Your task to perform on an android device: set an alarm Image 0: 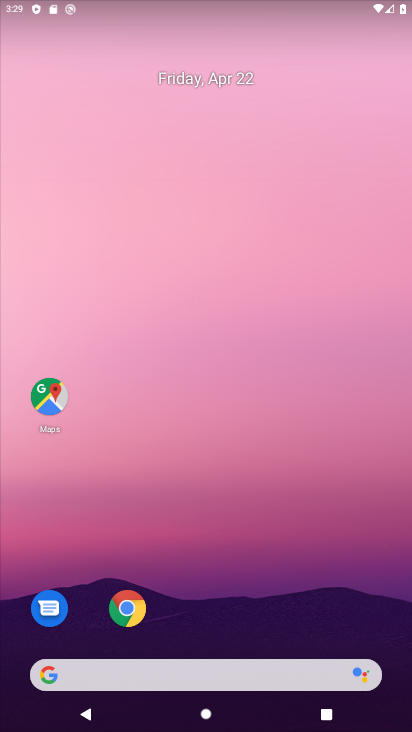
Step 0: drag from (303, 550) to (251, 221)
Your task to perform on an android device: set an alarm Image 1: 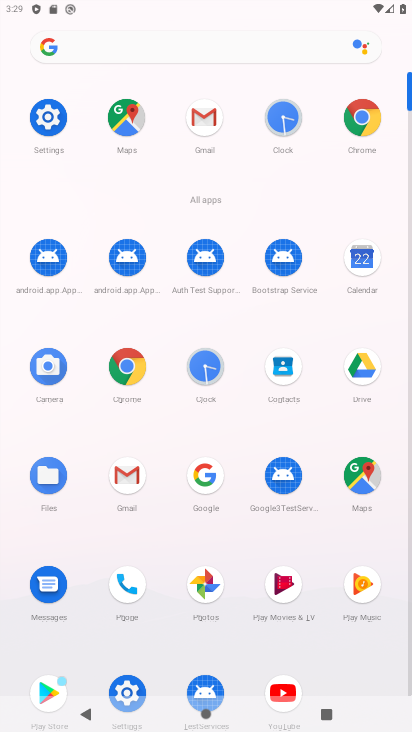
Step 1: click (283, 128)
Your task to perform on an android device: set an alarm Image 2: 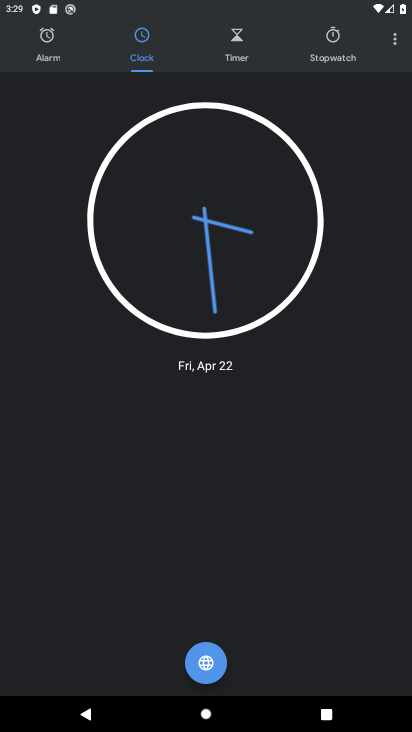
Step 2: click (52, 39)
Your task to perform on an android device: set an alarm Image 3: 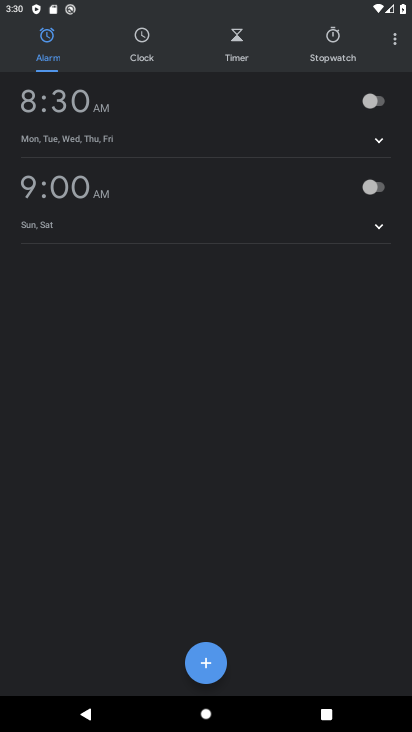
Step 3: click (205, 656)
Your task to perform on an android device: set an alarm Image 4: 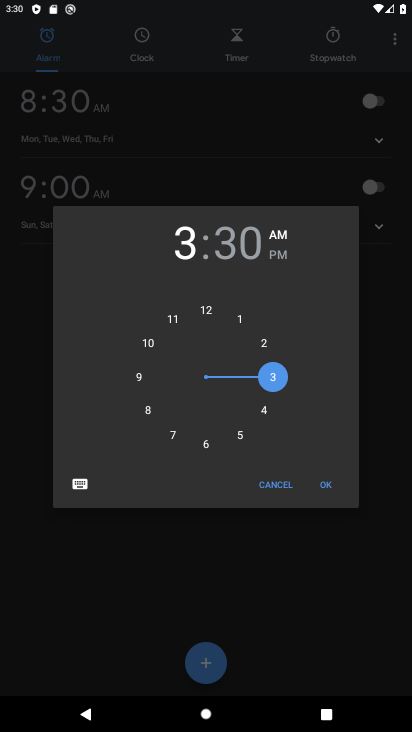
Step 4: click (215, 449)
Your task to perform on an android device: set an alarm Image 5: 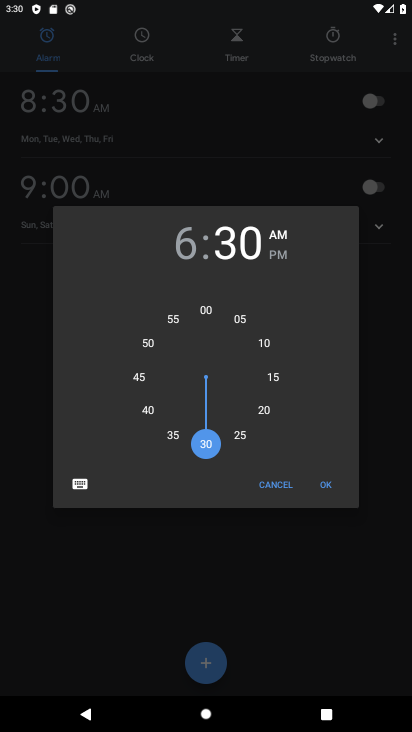
Step 5: click (322, 490)
Your task to perform on an android device: set an alarm Image 6: 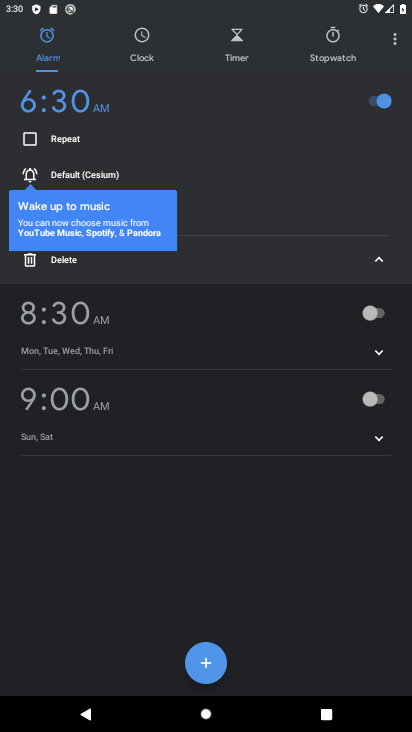
Step 6: task complete